Your task to perform on an android device: What's the weather today? Image 0: 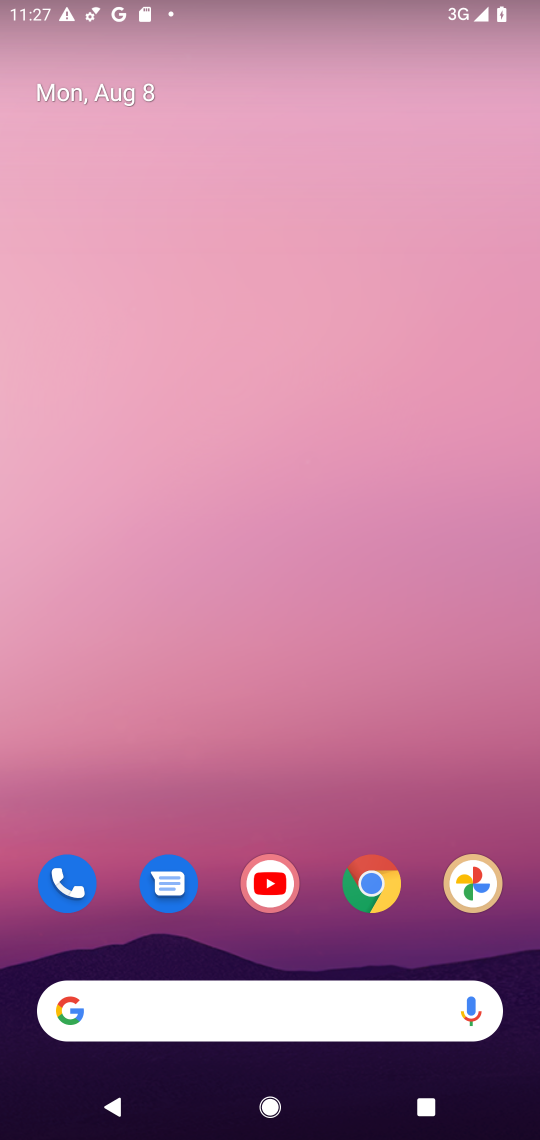
Step 0: drag from (318, 951) to (359, 151)
Your task to perform on an android device: What's the weather today? Image 1: 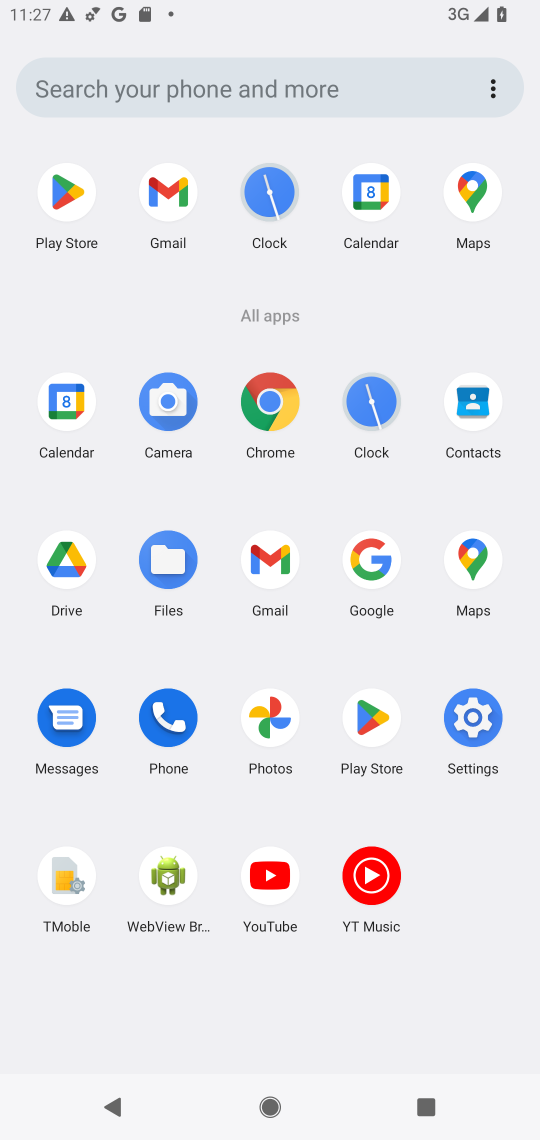
Step 1: click (174, 81)
Your task to perform on an android device: What's the weather today? Image 2: 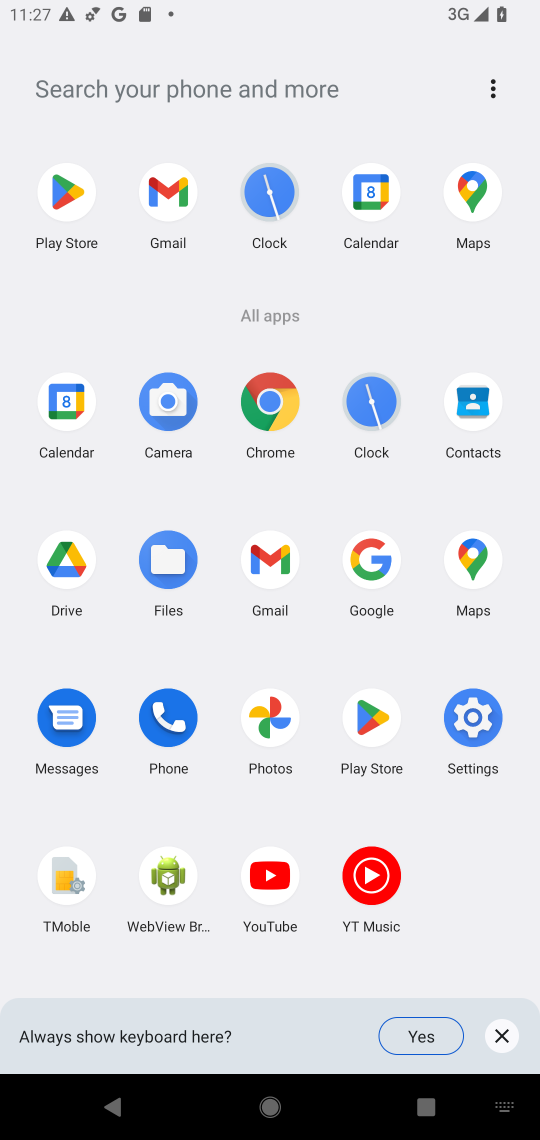
Step 2: type "weather"
Your task to perform on an android device: What's the weather today? Image 3: 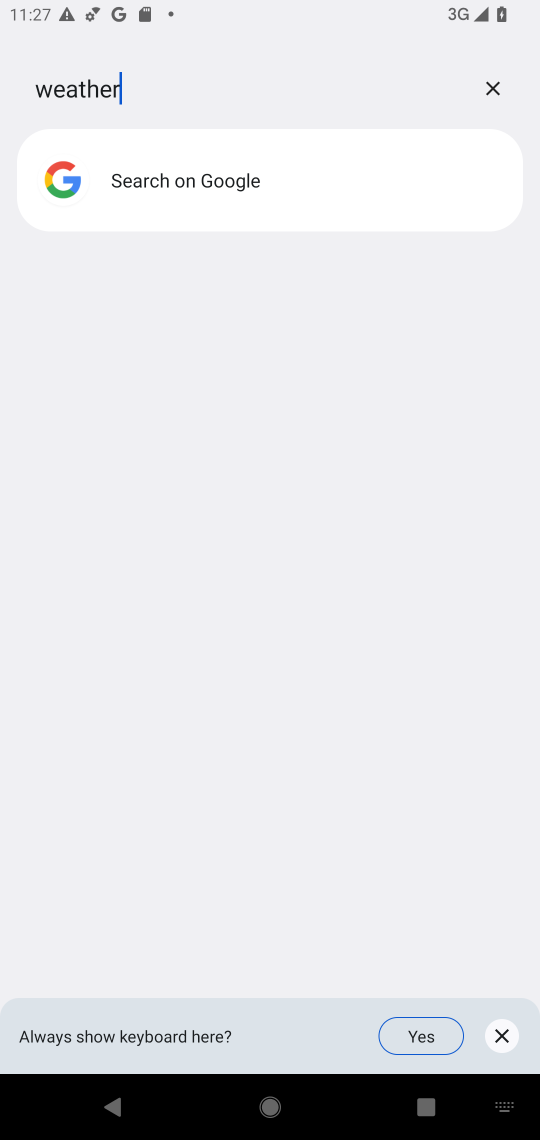
Step 3: click (202, 164)
Your task to perform on an android device: What's the weather today? Image 4: 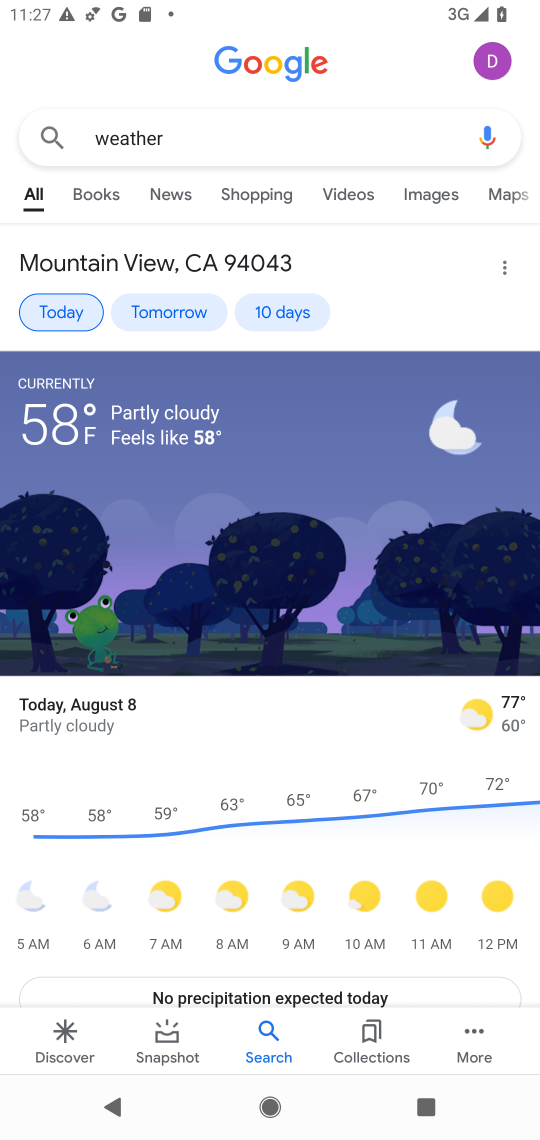
Step 4: task complete